Your task to perform on an android device: all mails in gmail Image 0: 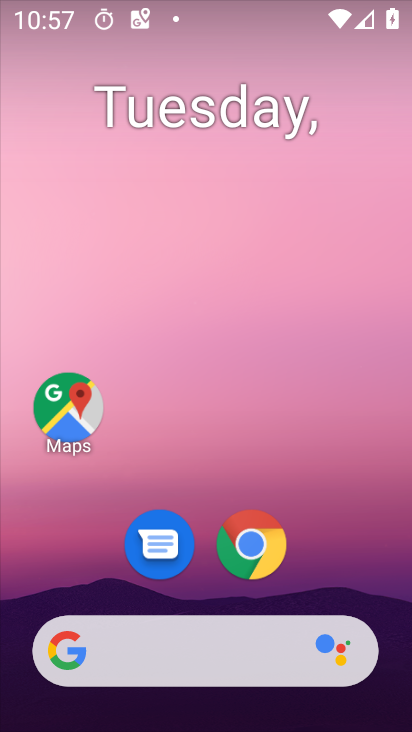
Step 0: drag from (319, 544) to (240, 50)
Your task to perform on an android device: all mails in gmail Image 1: 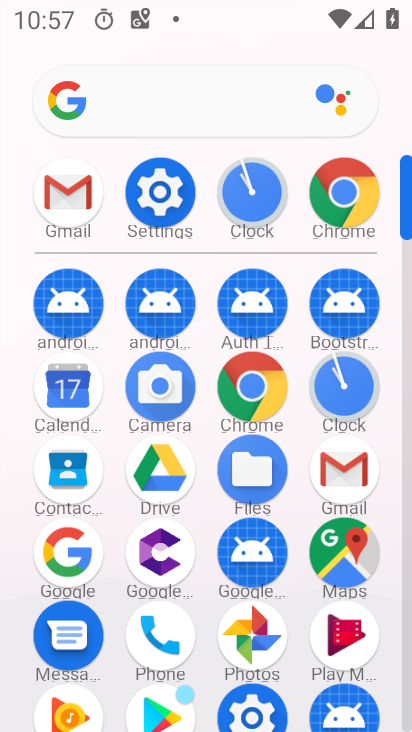
Step 1: click (59, 202)
Your task to perform on an android device: all mails in gmail Image 2: 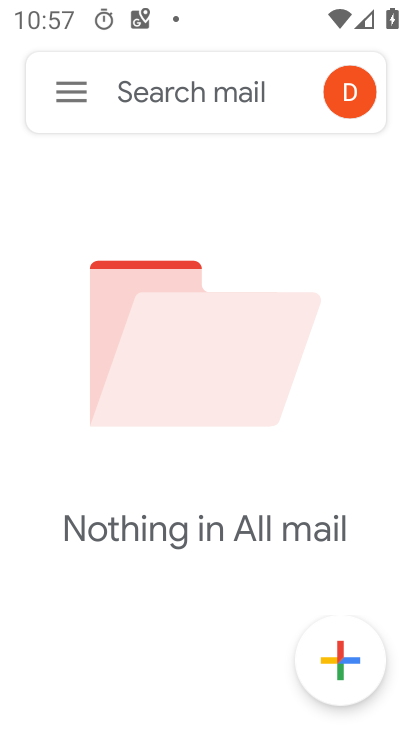
Step 2: task complete